Your task to perform on an android device: Turn on the flashlight Image 0: 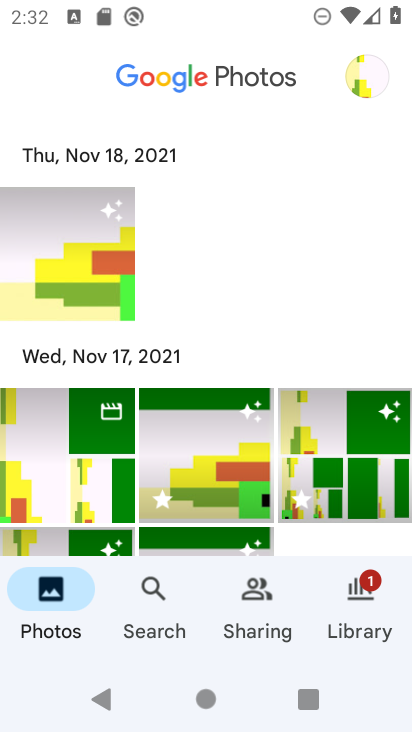
Step 0: task impossible